Your task to perform on an android device: turn on showing notifications on the lock screen Image 0: 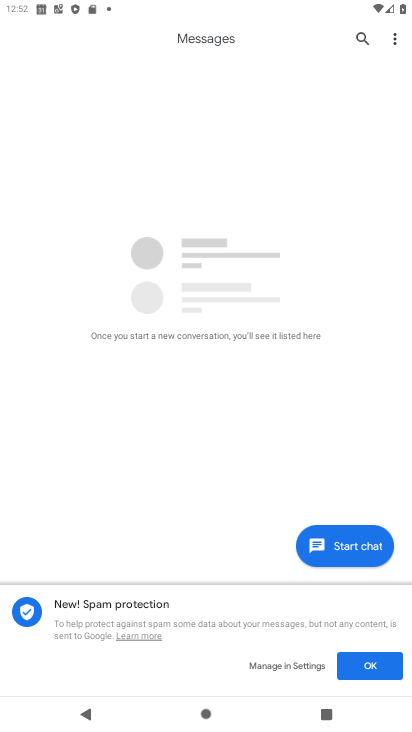
Step 0: press home button
Your task to perform on an android device: turn on showing notifications on the lock screen Image 1: 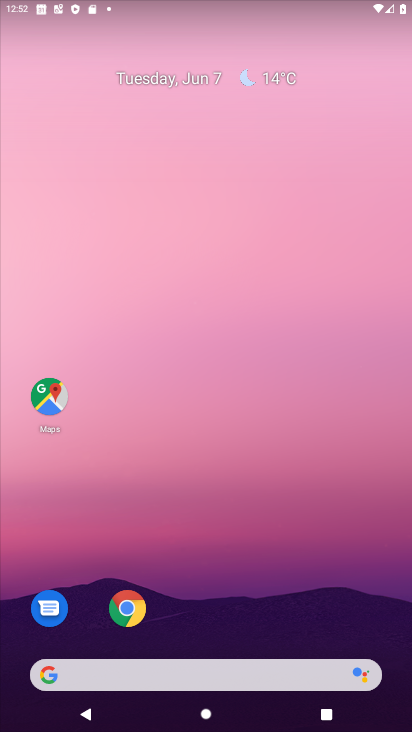
Step 1: drag from (260, 620) to (263, 48)
Your task to perform on an android device: turn on showing notifications on the lock screen Image 2: 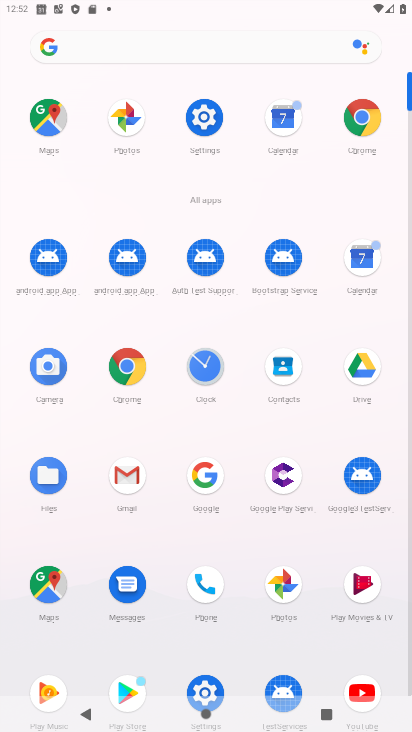
Step 2: click (192, 126)
Your task to perform on an android device: turn on showing notifications on the lock screen Image 3: 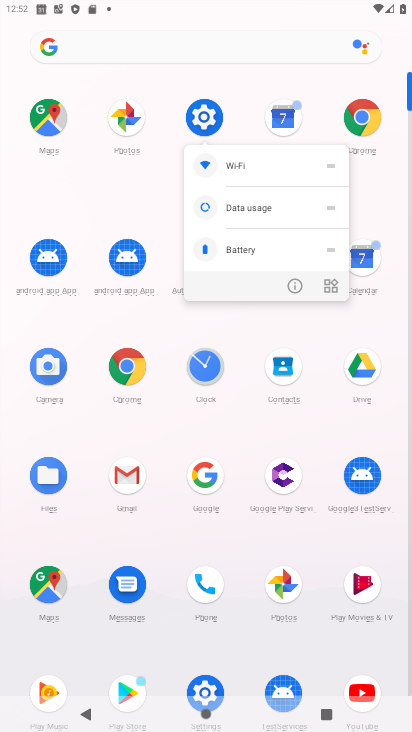
Step 3: click (193, 112)
Your task to perform on an android device: turn on showing notifications on the lock screen Image 4: 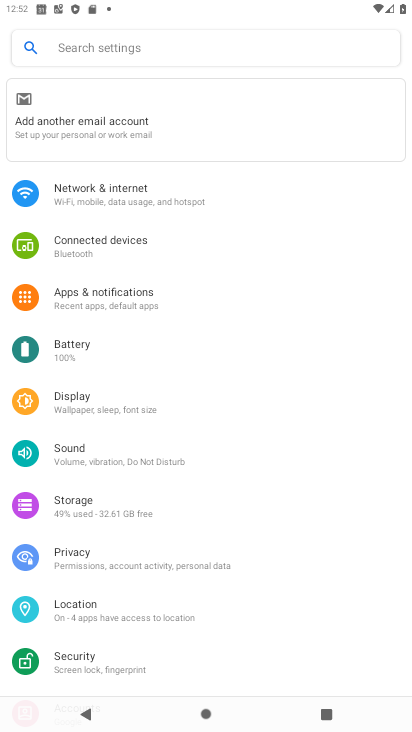
Step 4: click (117, 295)
Your task to perform on an android device: turn on showing notifications on the lock screen Image 5: 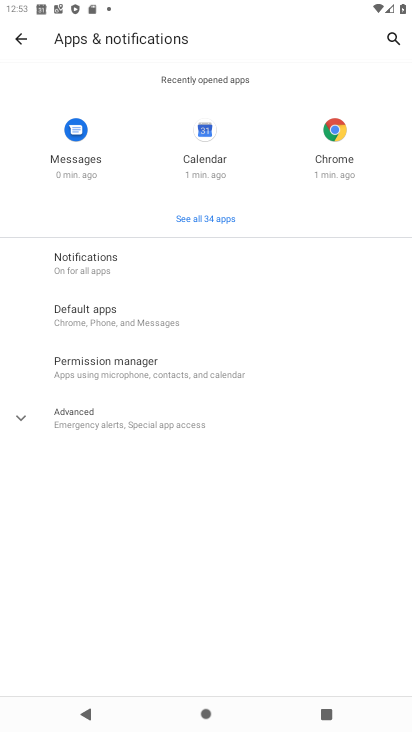
Step 5: click (105, 256)
Your task to perform on an android device: turn on showing notifications on the lock screen Image 6: 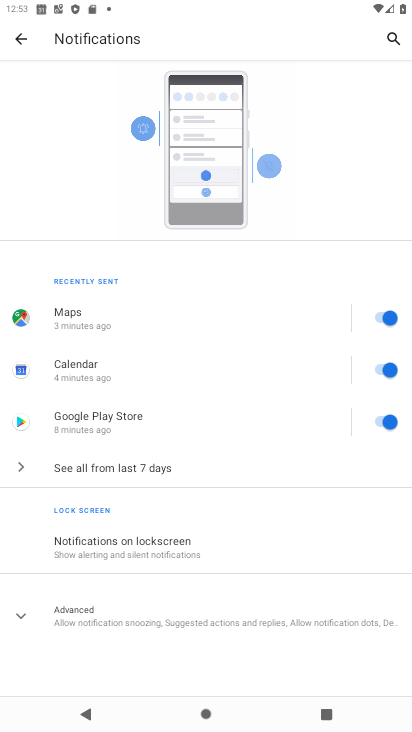
Step 6: click (194, 553)
Your task to perform on an android device: turn on showing notifications on the lock screen Image 7: 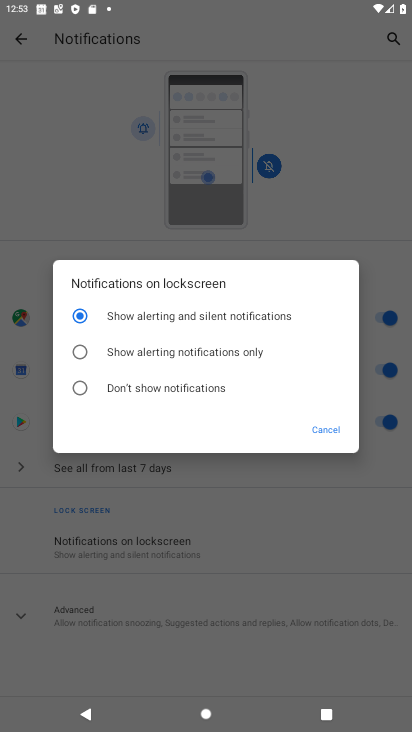
Step 7: task complete